Your task to perform on an android device: open app "Fetch Rewards" (install if not already installed) Image 0: 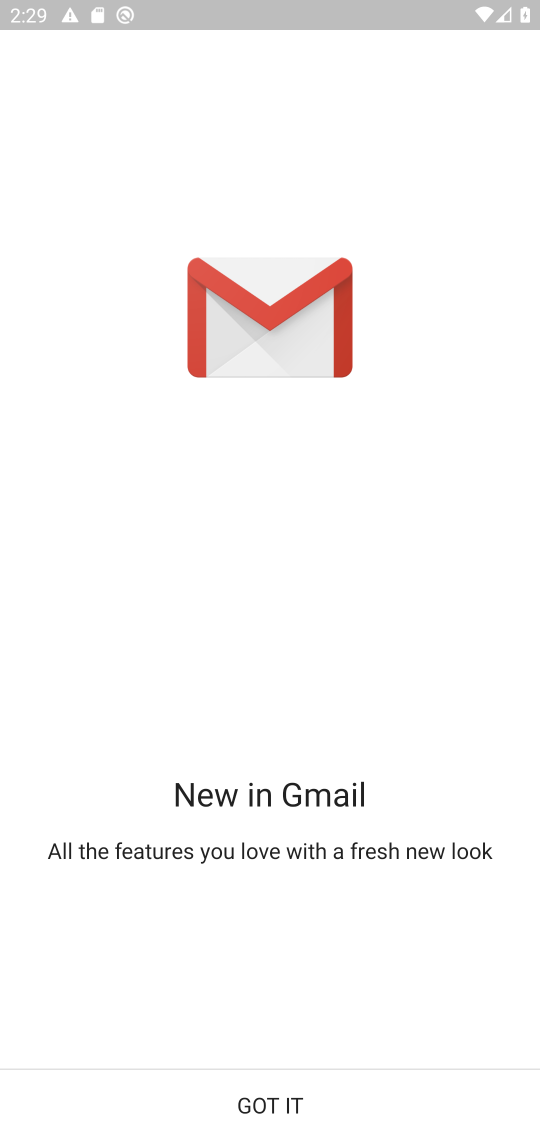
Step 0: press home button
Your task to perform on an android device: open app "Fetch Rewards" (install if not already installed) Image 1: 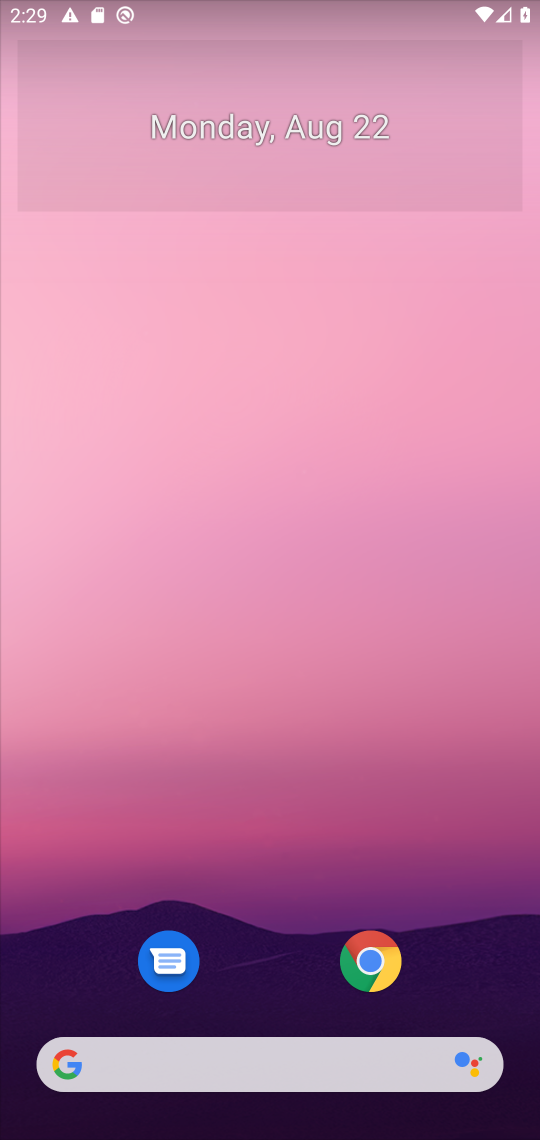
Step 1: drag from (460, 981) to (451, 88)
Your task to perform on an android device: open app "Fetch Rewards" (install if not already installed) Image 2: 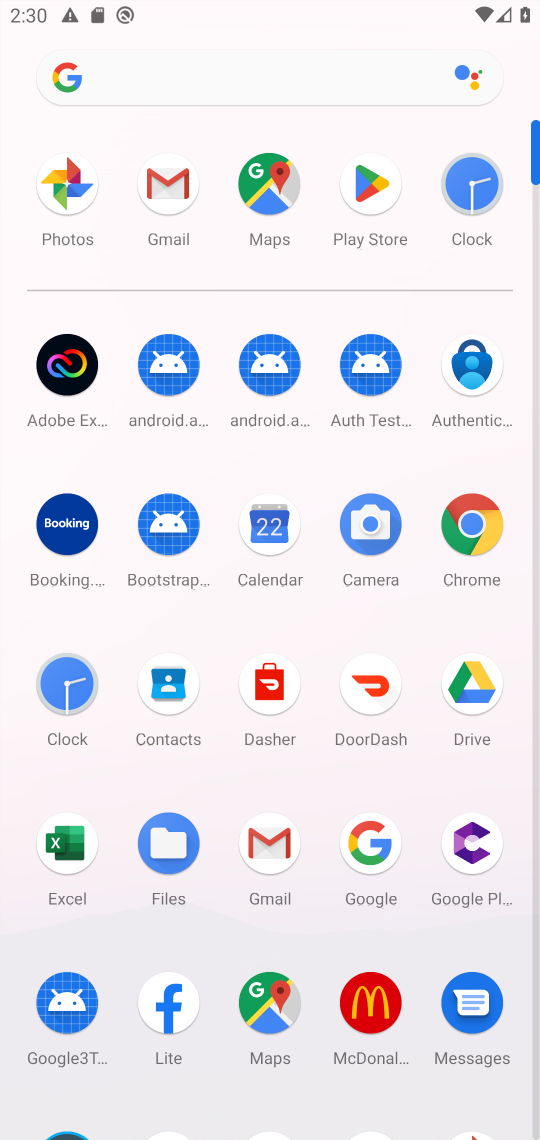
Step 2: click (366, 194)
Your task to perform on an android device: open app "Fetch Rewards" (install if not already installed) Image 3: 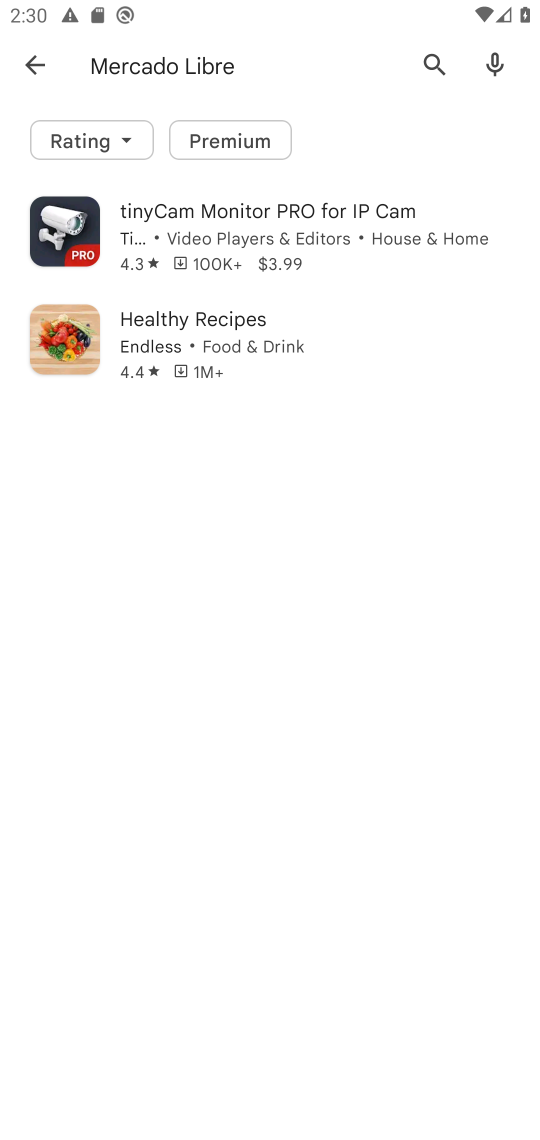
Step 3: press back button
Your task to perform on an android device: open app "Fetch Rewards" (install if not already installed) Image 4: 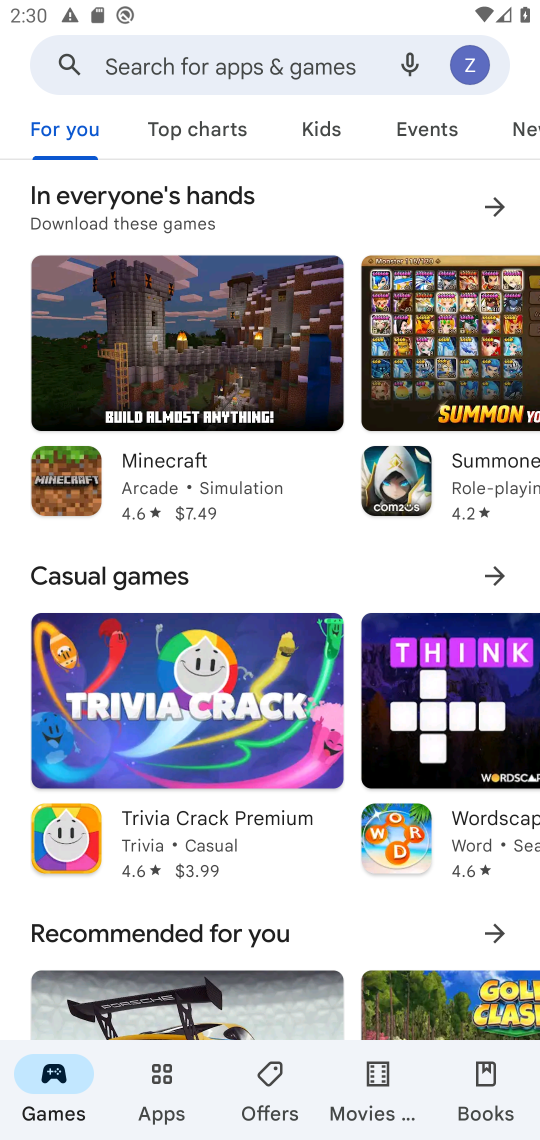
Step 4: click (278, 57)
Your task to perform on an android device: open app "Fetch Rewards" (install if not already installed) Image 5: 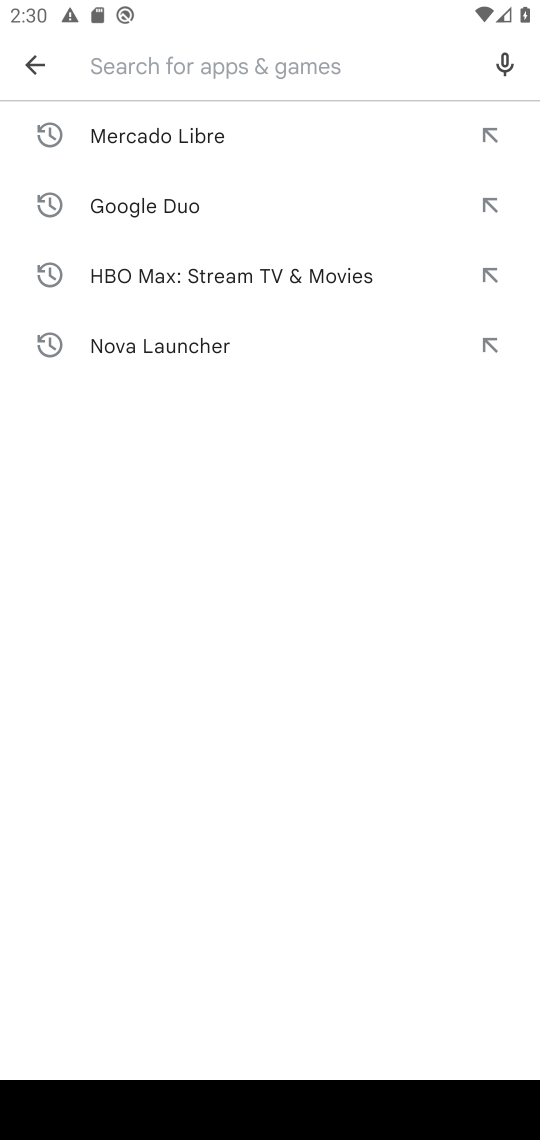
Step 5: type "Fetch Rewards"
Your task to perform on an android device: open app "Fetch Rewards" (install if not already installed) Image 6: 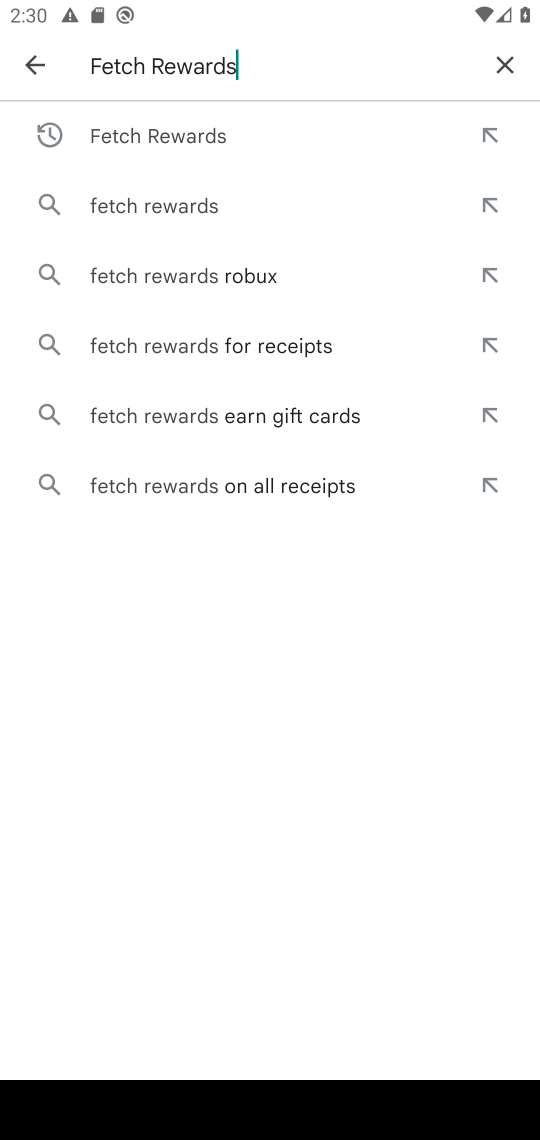
Step 6: press enter
Your task to perform on an android device: open app "Fetch Rewards" (install if not already installed) Image 7: 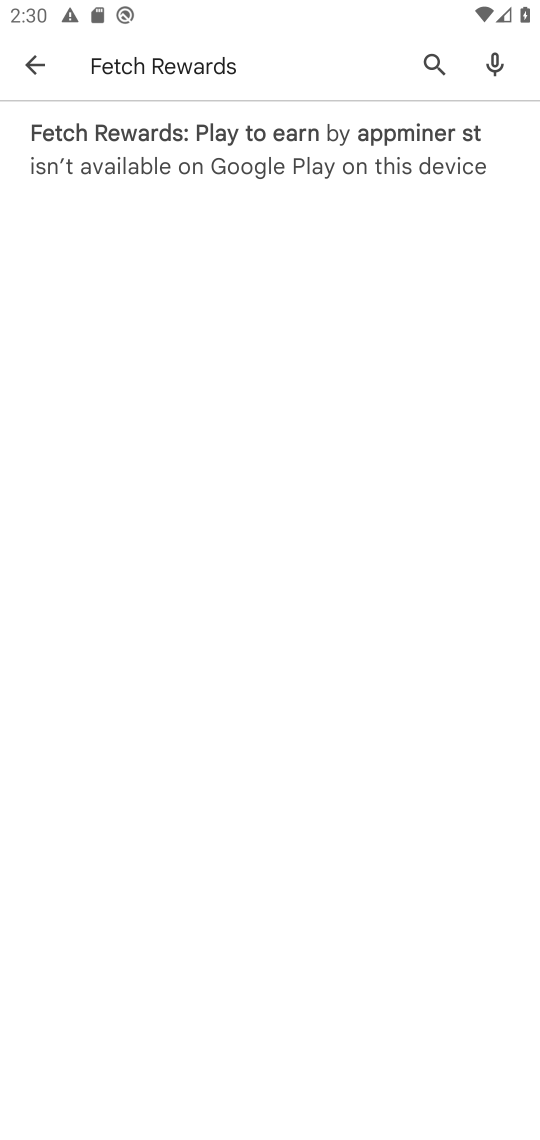
Step 7: task complete